Your task to perform on an android device: change your default location settings in chrome Image 0: 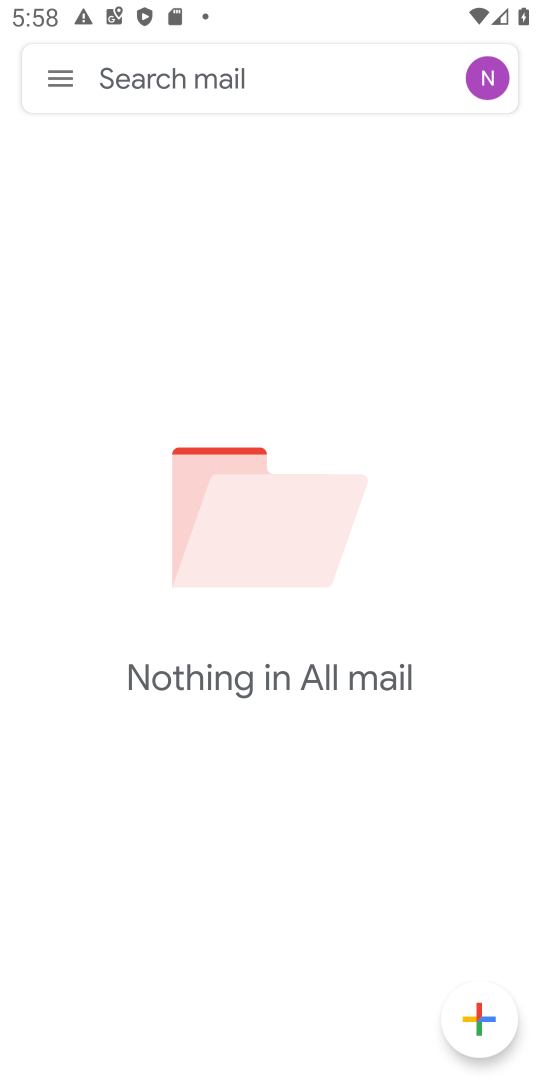
Step 0: press home button
Your task to perform on an android device: change your default location settings in chrome Image 1: 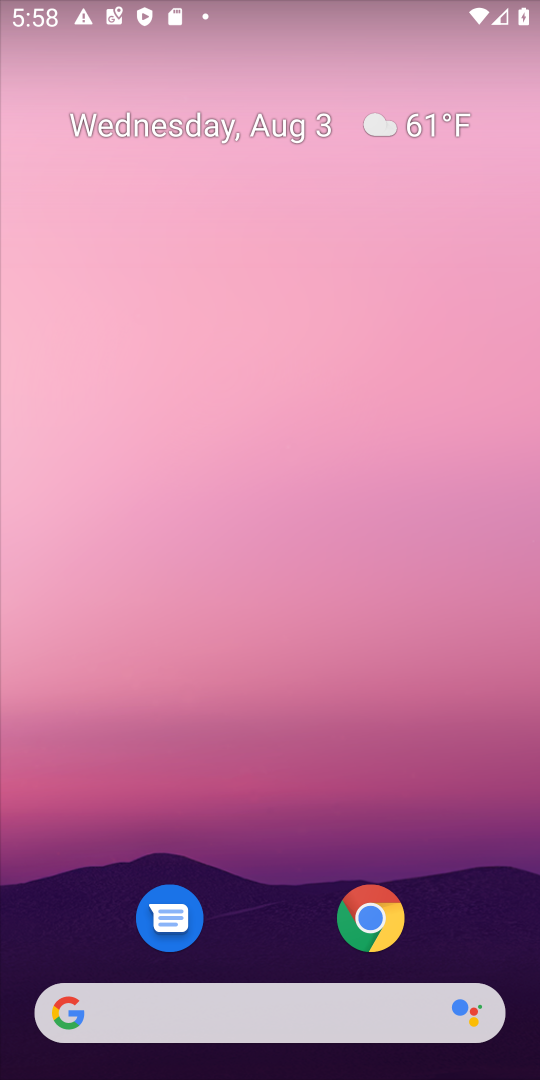
Step 1: click (368, 920)
Your task to perform on an android device: change your default location settings in chrome Image 2: 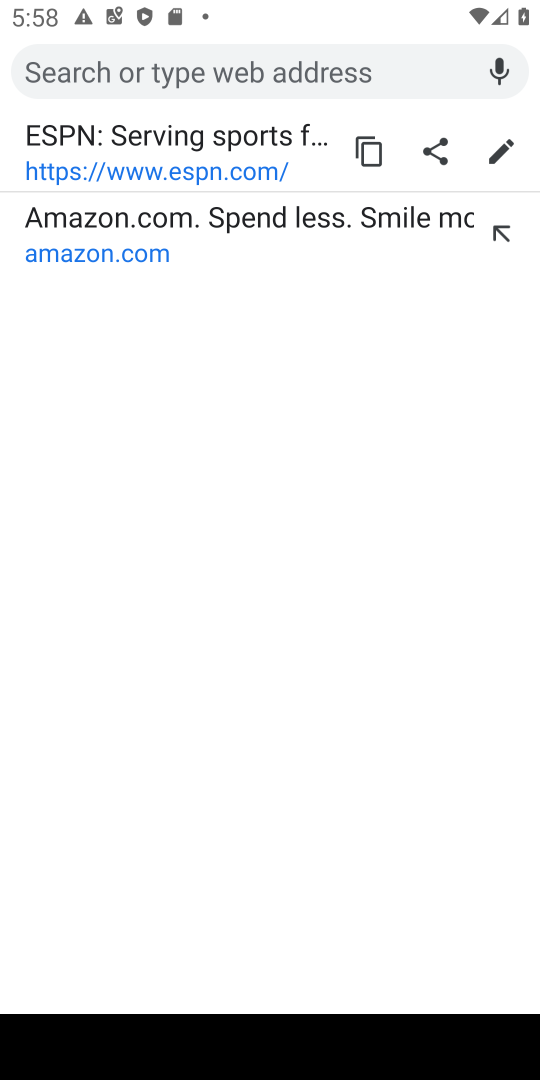
Step 2: click (354, 76)
Your task to perform on an android device: change your default location settings in chrome Image 3: 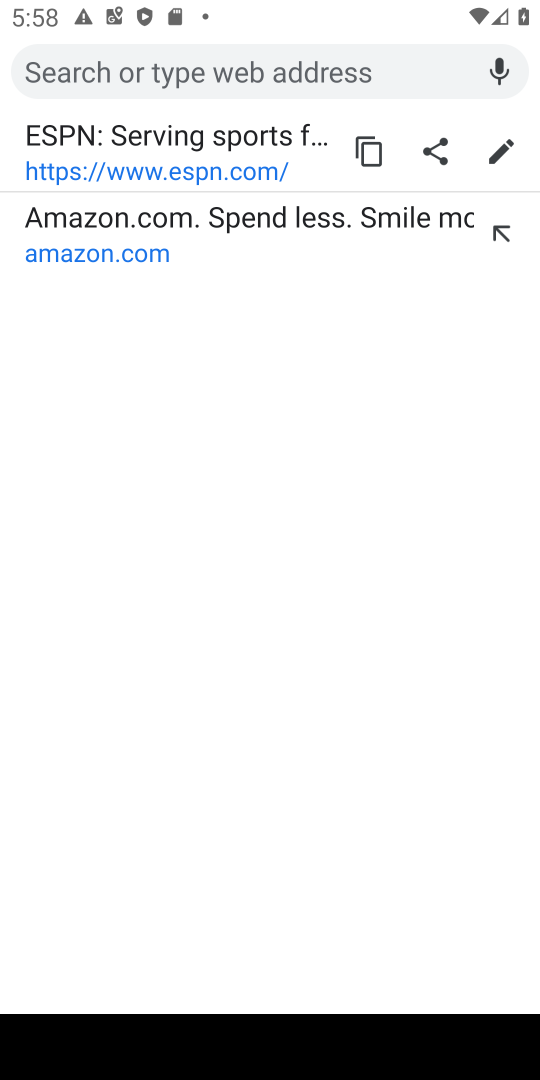
Step 3: press back button
Your task to perform on an android device: change your default location settings in chrome Image 4: 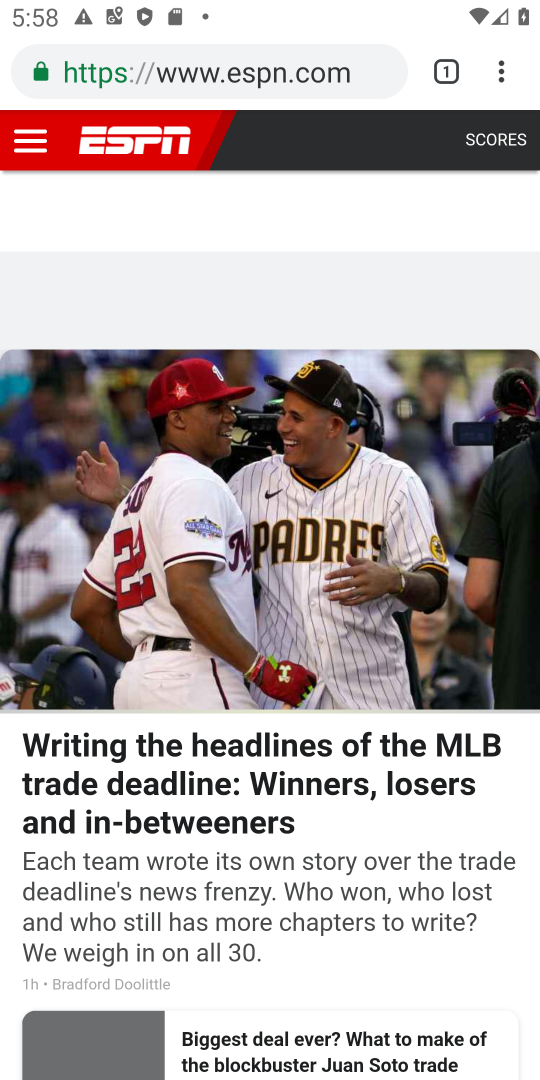
Step 4: click (493, 75)
Your task to perform on an android device: change your default location settings in chrome Image 5: 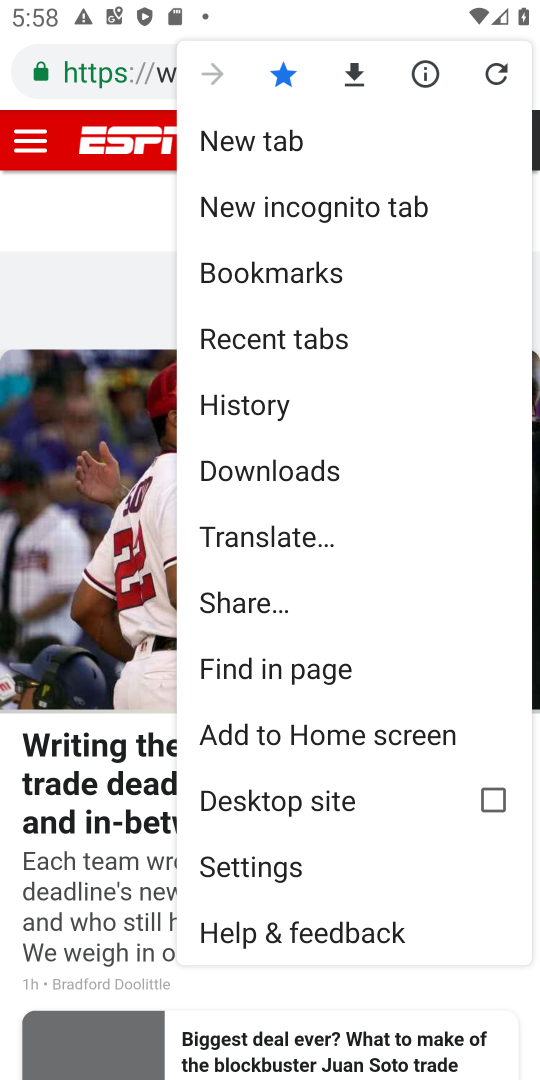
Step 5: click (270, 893)
Your task to perform on an android device: change your default location settings in chrome Image 6: 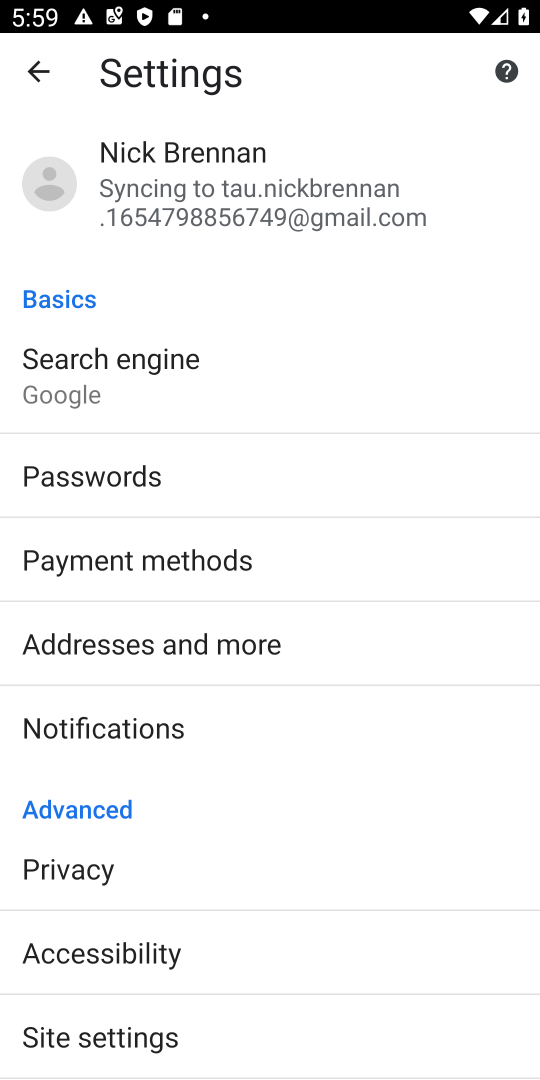
Step 6: click (136, 1012)
Your task to perform on an android device: change your default location settings in chrome Image 7: 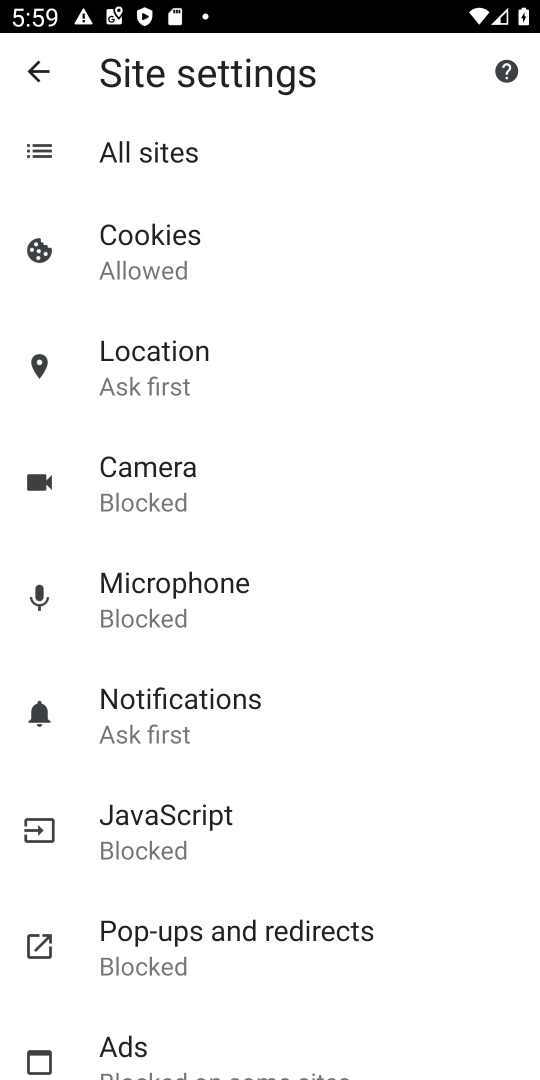
Step 7: click (202, 378)
Your task to perform on an android device: change your default location settings in chrome Image 8: 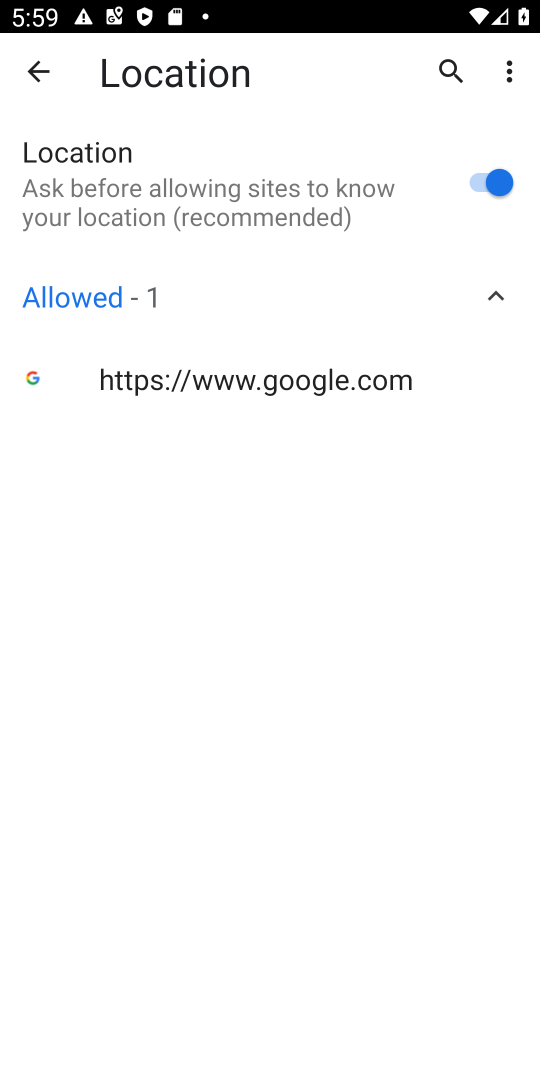
Step 8: click (481, 179)
Your task to perform on an android device: change your default location settings in chrome Image 9: 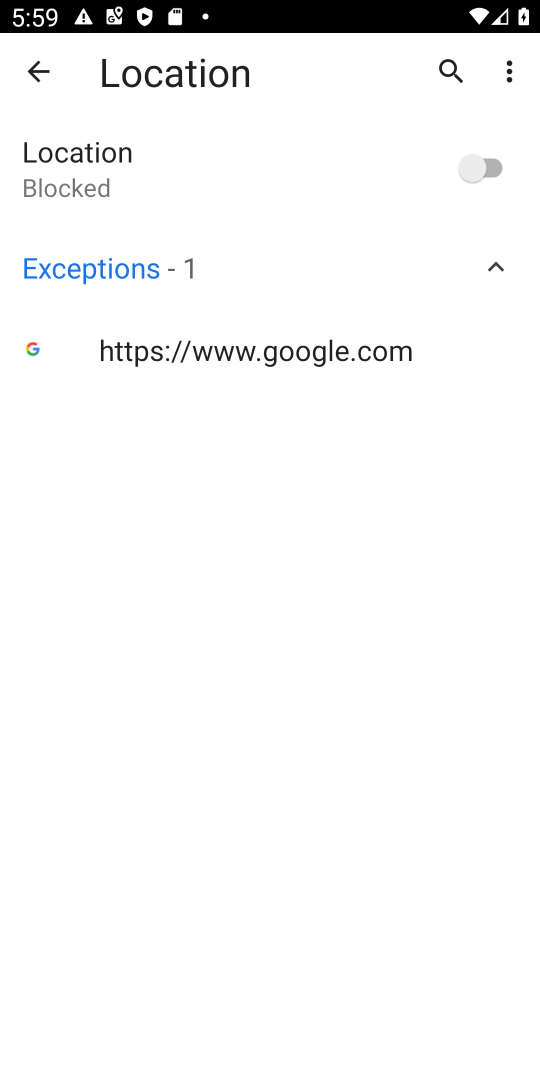
Step 9: task complete